Your task to perform on an android device: set default search engine in the chrome app Image 0: 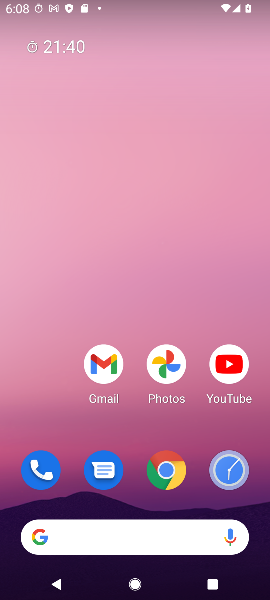
Step 0: drag from (184, 477) to (196, 34)
Your task to perform on an android device: set default search engine in the chrome app Image 1: 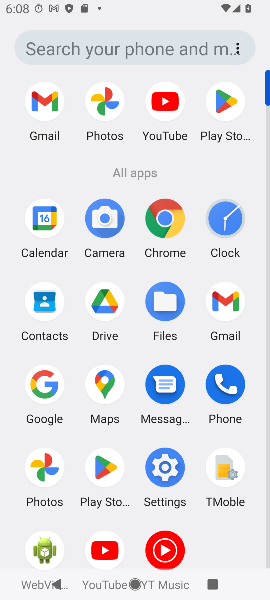
Step 1: click (175, 225)
Your task to perform on an android device: set default search engine in the chrome app Image 2: 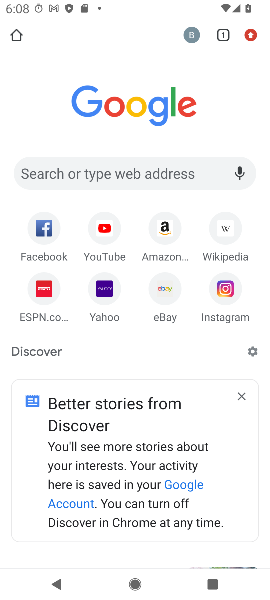
Step 2: drag from (255, 31) to (141, 378)
Your task to perform on an android device: set default search engine in the chrome app Image 3: 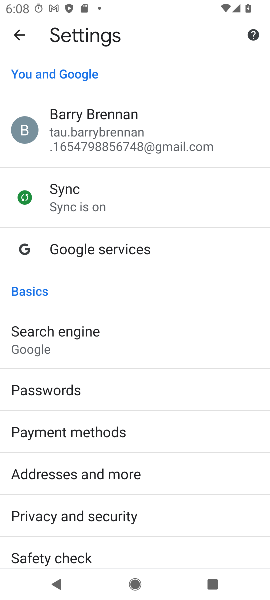
Step 3: click (73, 345)
Your task to perform on an android device: set default search engine in the chrome app Image 4: 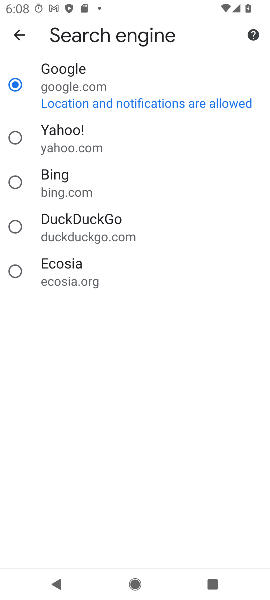
Step 4: task complete